Your task to perform on an android device: check the backup settings in the google photos Image 0: 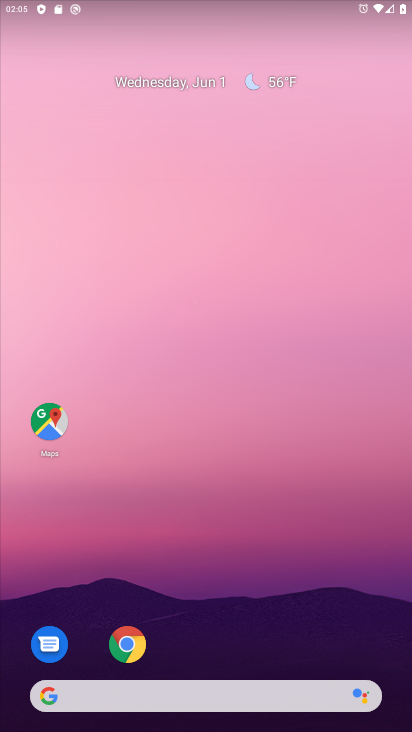
Step 0: drag from (222, 653) to (247, 404)
Your task to perform on an android device: check the backup settings in the google photos Image 1: 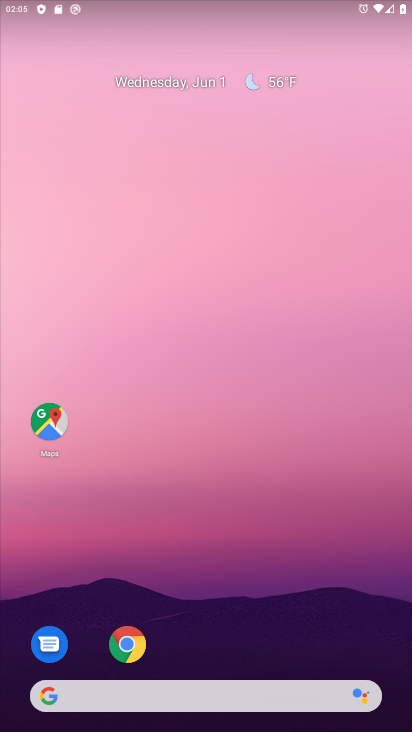
Step 1: drag from (279, 672) to (279, 242)
Your task to perform on an android device: check the backup settings in the google photos Image 2: 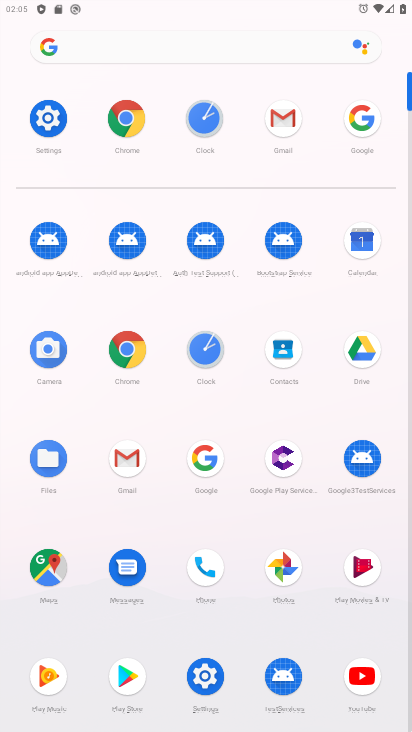
Step 2: click (268, 576)
Your task to perform on an android device: check the backup settings in the google photos Image 3: 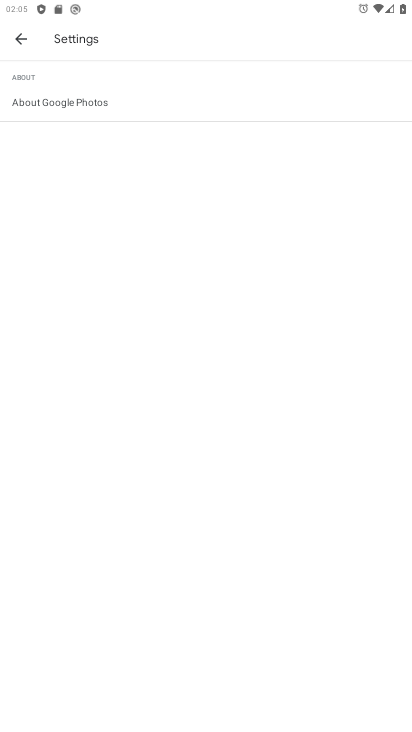
Step 3: click (15, 40)
Your task to perform on an android device: check the backup settings in the google photos Image 4: 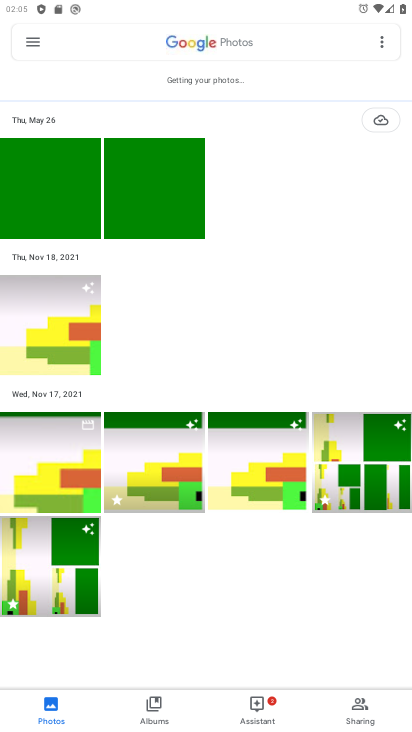
Step 4: click (34, 45)
Your task to perform on an android device: check the backup settings in the google photos Image 5: 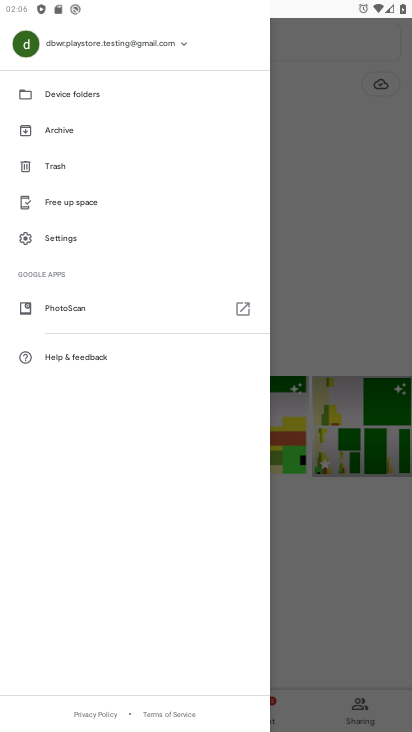
Step 5: click (68, 243)
Your task to perform on an android device: check the backup settings in the google photos Image 6: 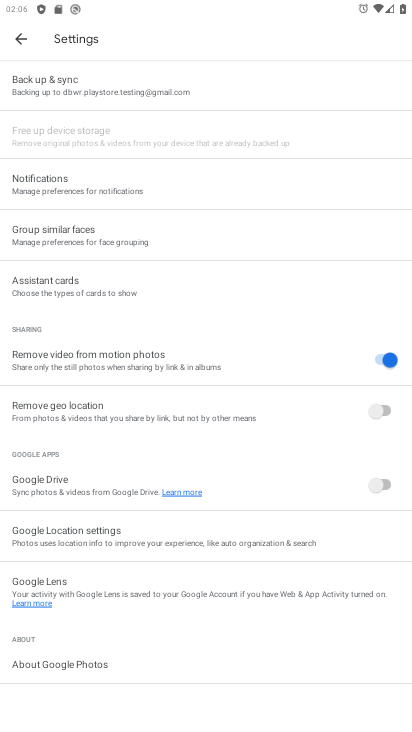
Step 6: click (53, 95)
Your task to perform on an android device: check the backup settings in the google photos Image 7: 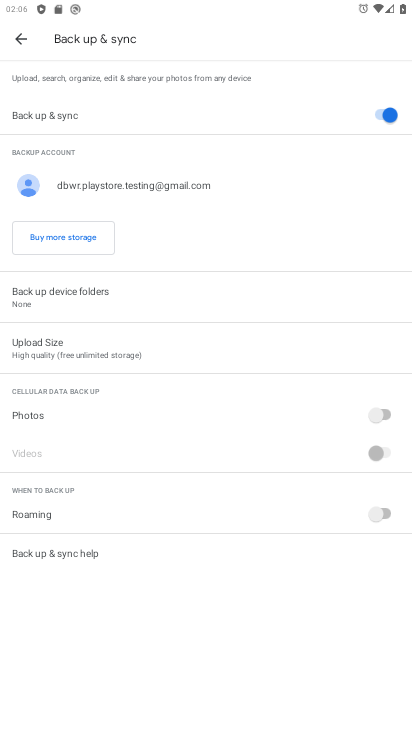
Step 7: task complete